Your task to perform on an android device: What's on my calendar today? Image 0: 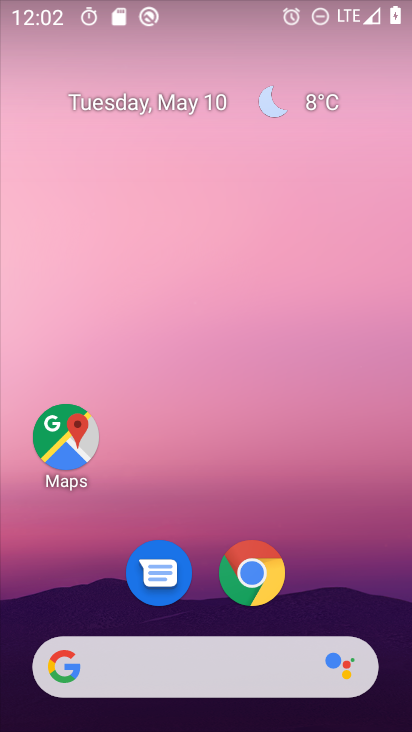
Step 0: drag from (372, 558) to (290, 140)
Your task to perform on an android device: What's on my calendar today? Image 1: 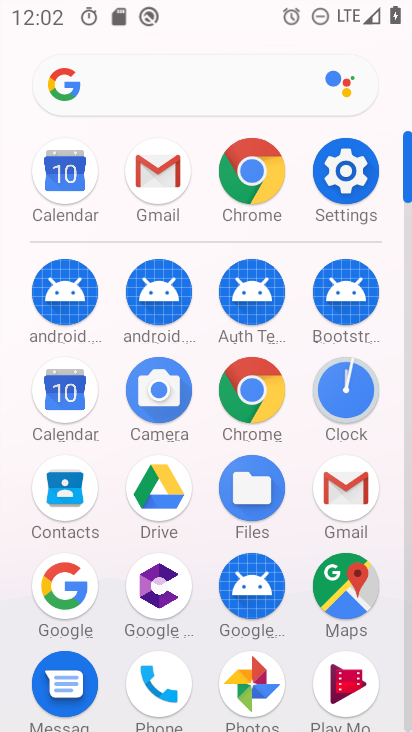
Step 1: click (64, 387)
Your task to perform on an android device: What's on my calendar today? Image 2: 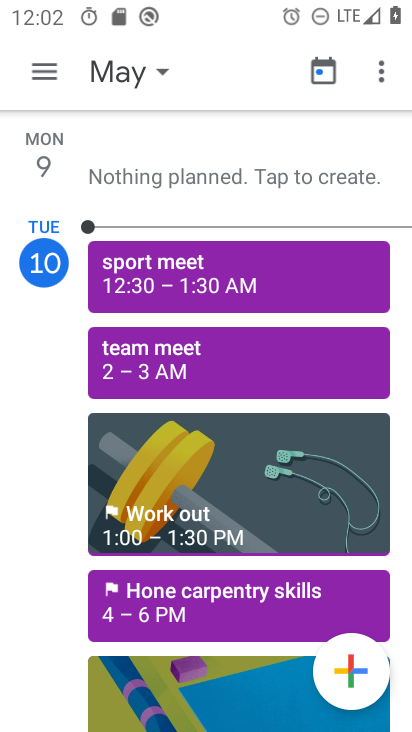
Step 2: click (185, 169)
Your task to perform on an android device: What's on my calendar today? Image 3: 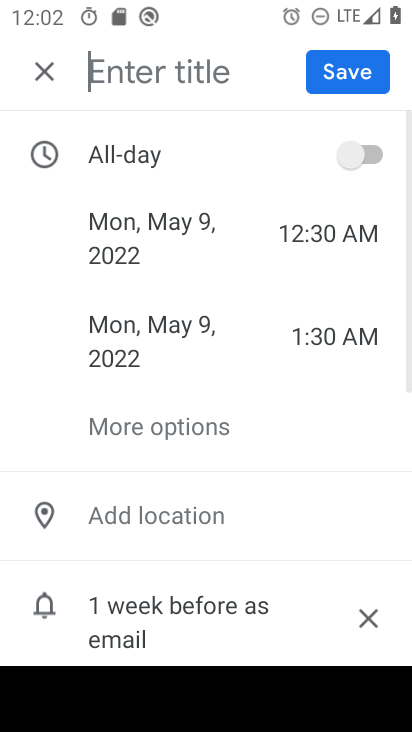
Step 3: click (34, 63)
Your task to perform on an android device: What's on my calendar today? Image 4: 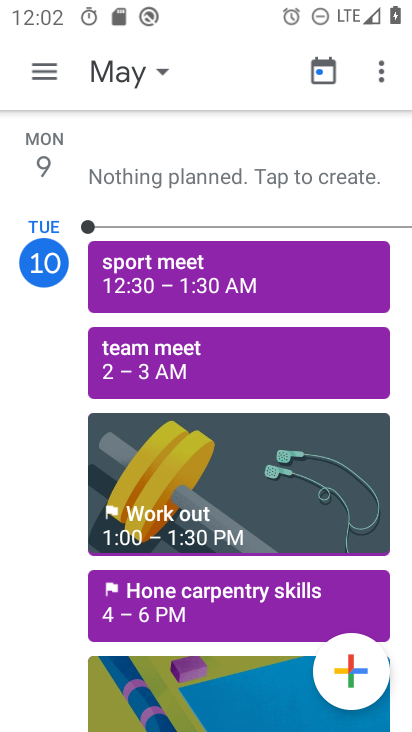
Step 4: click (48, 164)
Your task to perform on an android device: What's on my calendar today? Image 5: 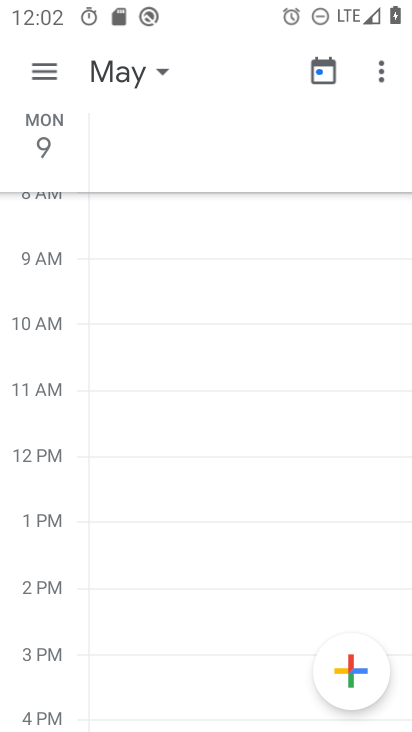
Step 5: task complete